Your task to perform on an android device: Open location settings Image 0: 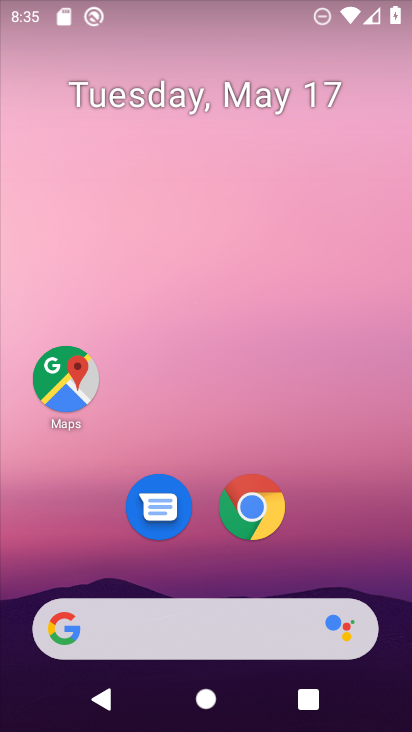
Step 0: drag from (352, 563) to (327, 8)
Your task to perform on an android device: Open location settings Image 1: 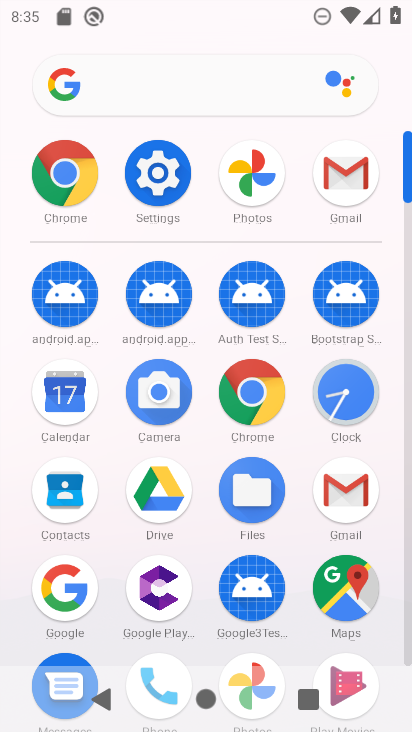
Step 1: click (160, 162)
Your task to perform on an android device: Open location settings Image 2: 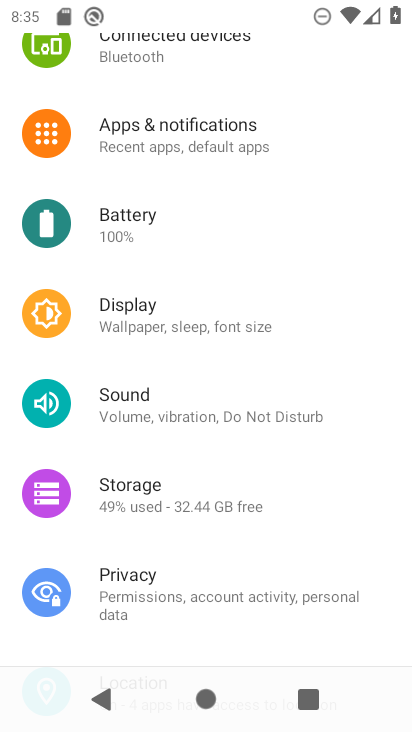
Step 2: drag from (309, 422) to (297, 226)
Your task to perform on an android device: Open location settings Image 3: 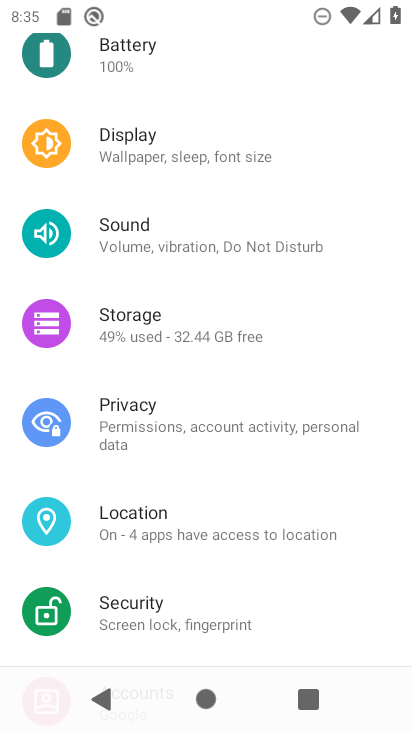
Step 3: click (134, 518)
Your task to perform on an android device: Open location settings Image 4: 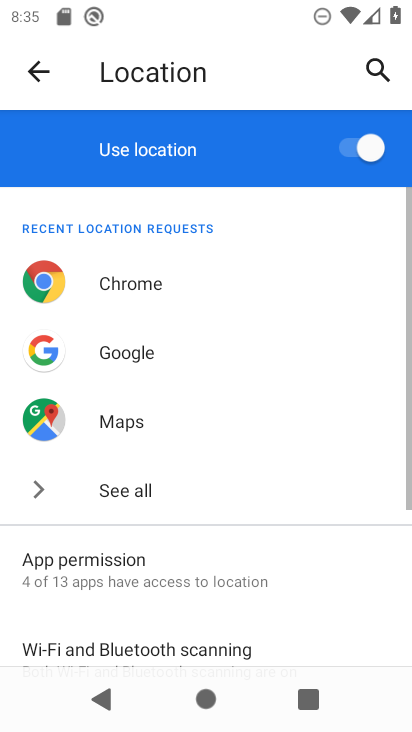
Step 4: task complete